Your task to perform on an android device: Go to network settings Image 0: 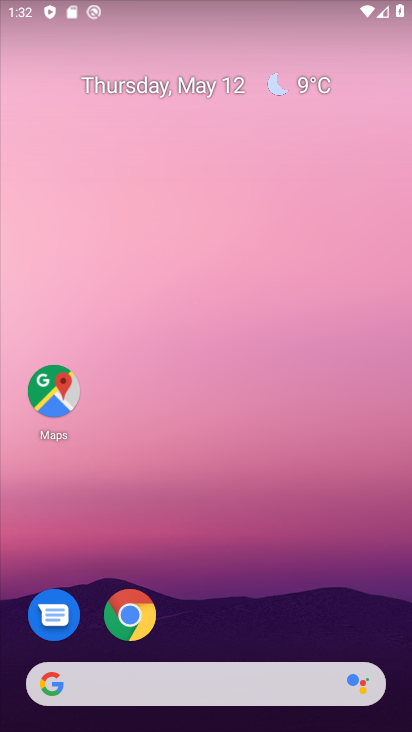
Step 0: drag from (210, 678) to (216, 301)
Your task to perform on an android device: Go to network settings Image 1: 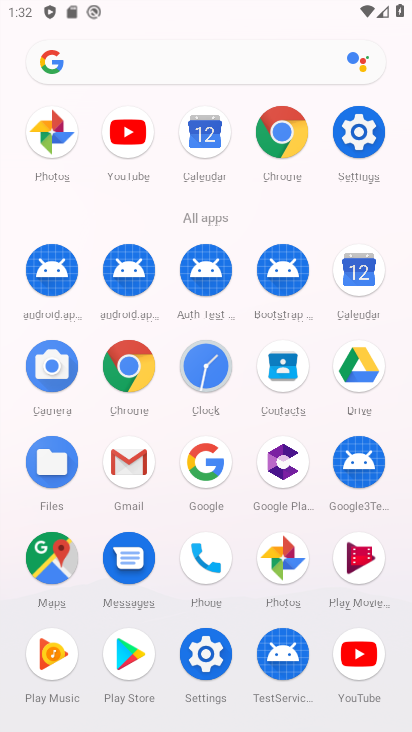
Step 1: click (352, 139)
Your task to perform on an android device: Go to network settings Image 2: 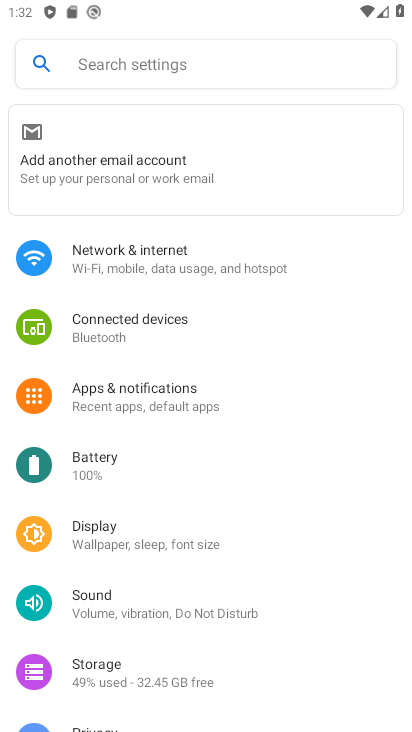
Step 2: click (129, 265)
Your task to perform on an android device: Go to network settings Image 3: 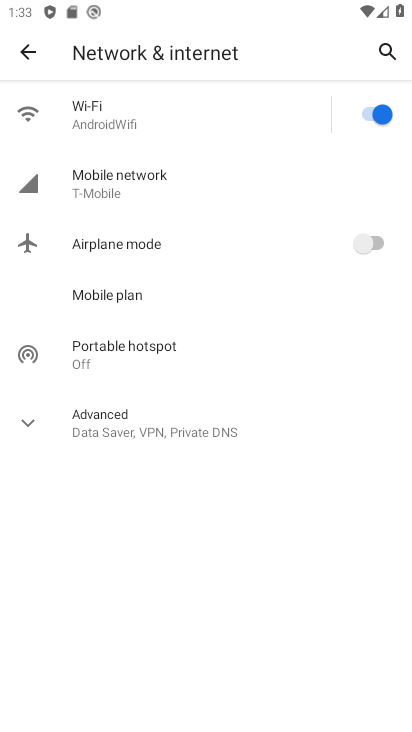
Step 3: task complete